Your task to perform on an android device: Show me the alarms in the clock app Image 0: 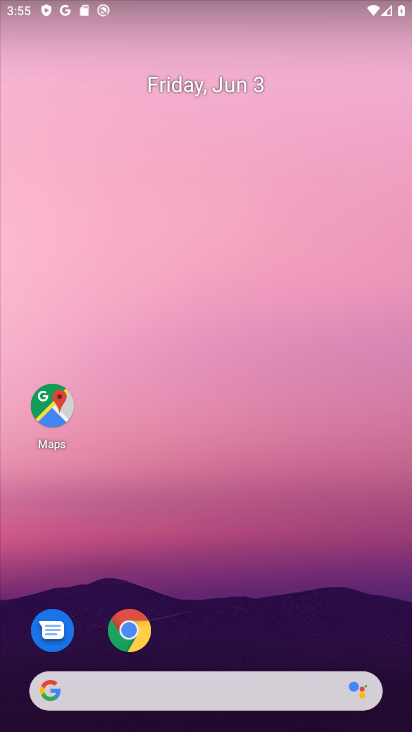
Step 0: drag from (247, 504) to (214, 6)
Your task to perform on an android device: Show me the alarms in the clock app Image 1: 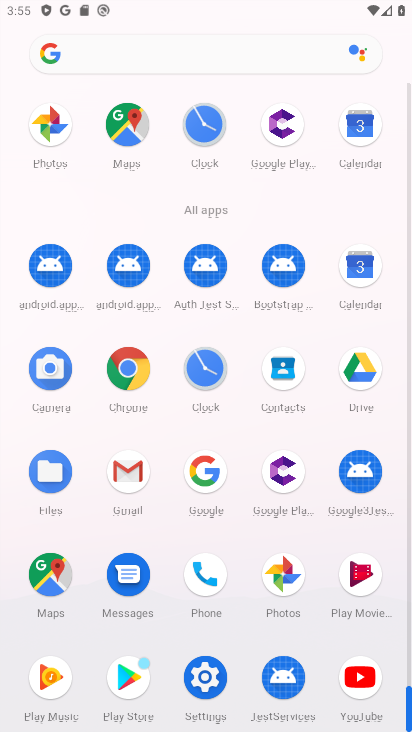
Step 1: drag from (13, 589) to (12, 277)
Your task to perform on an android device: Show me the alarms in the clock app Image 2: 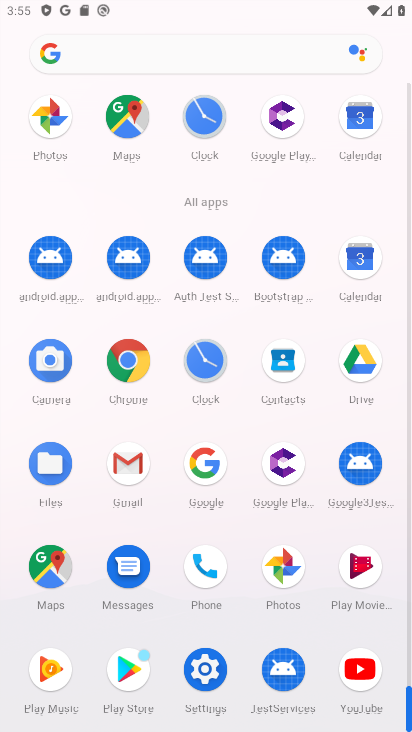
Step 2: click (203, 360)
Your task to perform on an android device: Show me the alarms in the clock app Image 3: 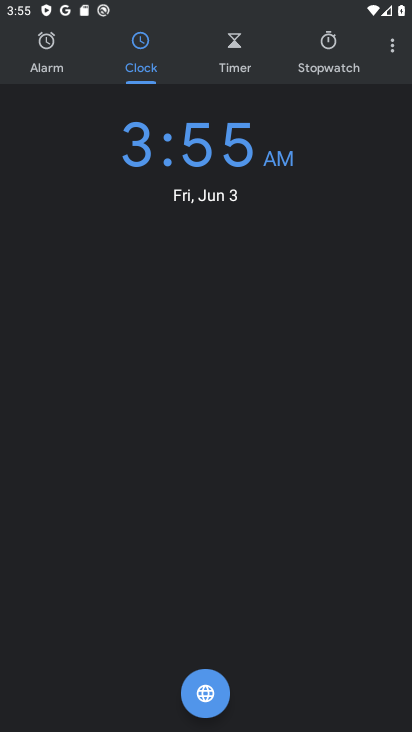
Step 3: drag from (393, 51) to (343, 87)
Your task to perform on an android device: Show me the alarms in the clock app Image 4: 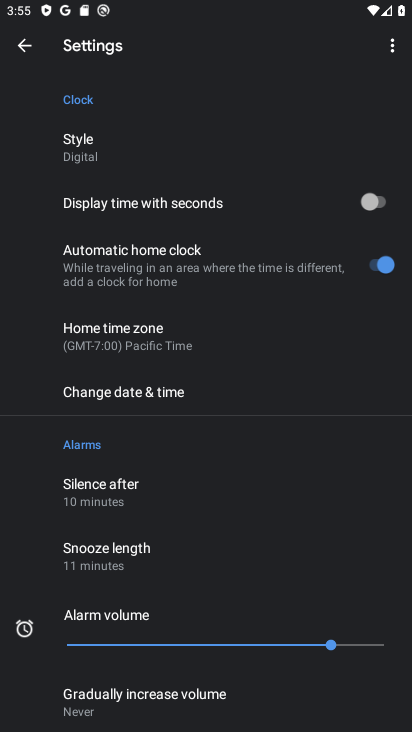
Step 4: click (25, 44)
Your task to perform on an android device: Show me the alarms in the clock app Image 5: 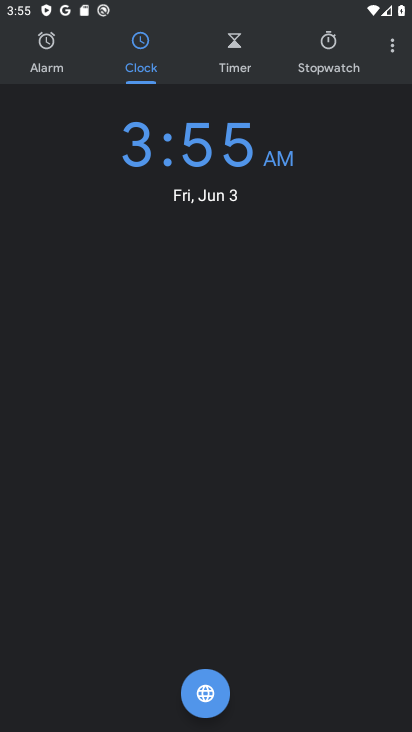
Step 5: click (46, 53)
Your task to perform on an android device: Show me the alarms in the clock app Image 6: 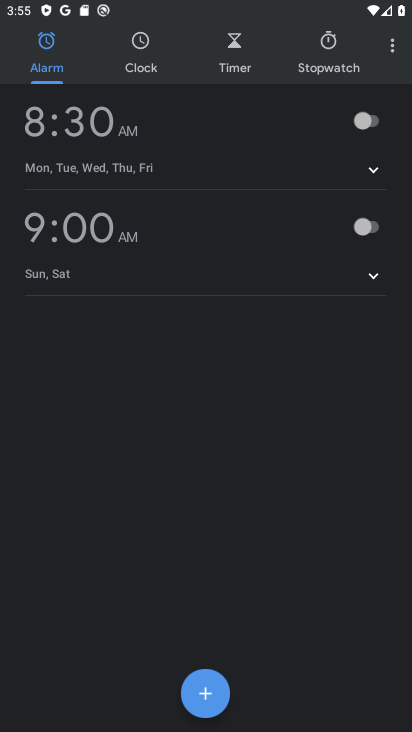
Step 6: click (207, 708)
Your task to perform on an android device: Show me the alarms in the clock app Image 7: 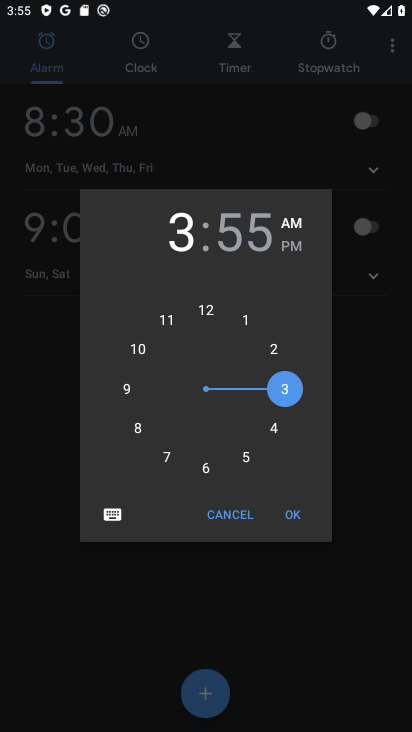
Step 7: click (297, 511)
Your task to perform on an android device: Show me the alarms in the clock app Image 8: 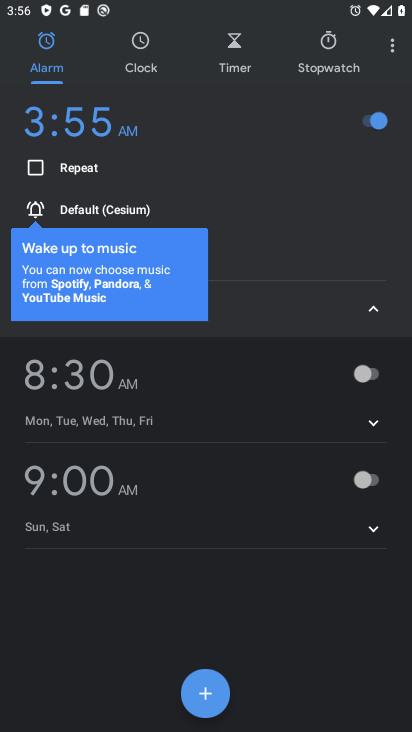
Step 8: task complete